Your task to perform on an android device: add a contact Image 0: 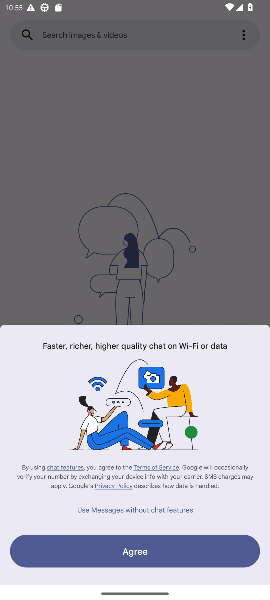
Step 0: press home button
Your task to perform on an android device: add a contact Image 1: 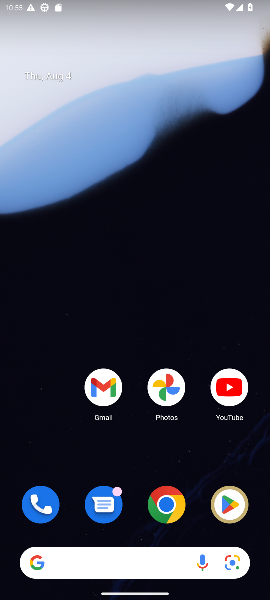
Step 1: drag from (135, 467) to (161, 9)
Your task to perform on an android device: add a contact Image 2: 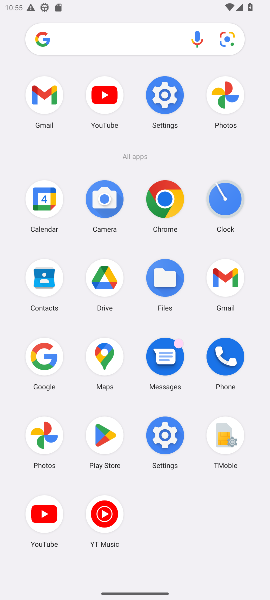
Step 2: click (40, 273)
Your task to perform on an android device: add a contact Image 3: 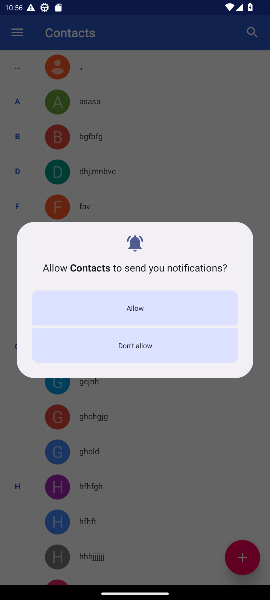
Step 3: click (132, 298)
Your task to perform on an android device: add a contact Image 4: 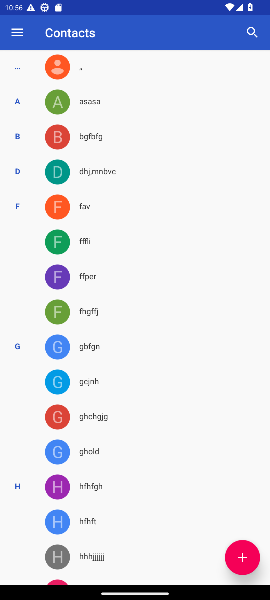
Step 4: click (240, 554)
Your task to perform on an android device: add a contact Image 5: 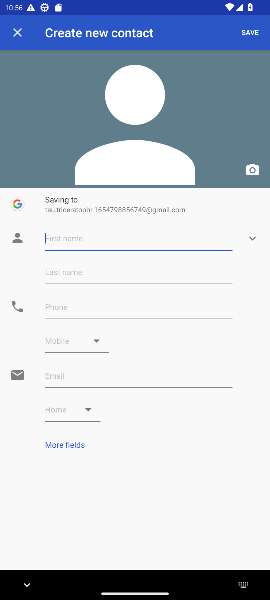
Step 5: type "tyugh"
Your task to perform on an android device: add a contact Image 6: 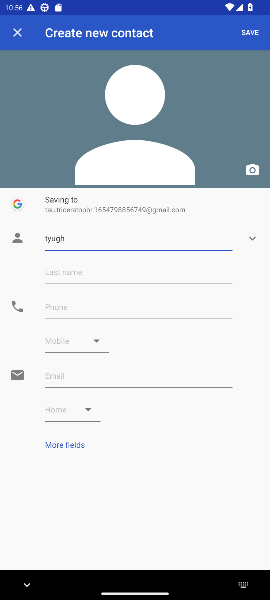
Step 6: click (79, 312)
Your task to perform on an android device: add a contact Image 7: 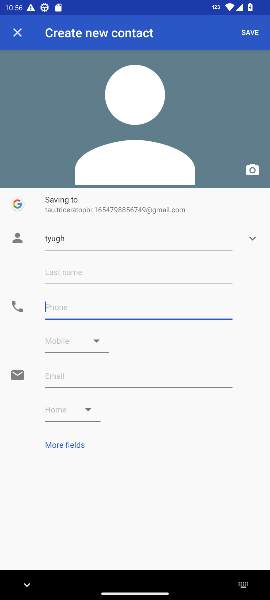
Step 7: type "5678909876"
Your task to perform on an android device: add a contact Image 8: 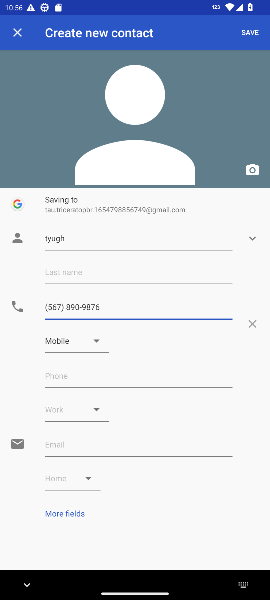
Step 8: click (242, 28)
Your task to perform on an android device: add a contact Image 9: 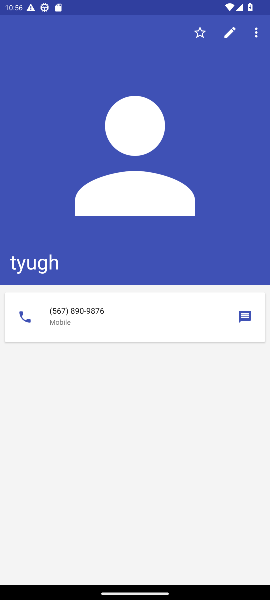
Step 9: task complete